Your task to perform on an android device: Search for vegetarian restaurants on Maps Image 0: 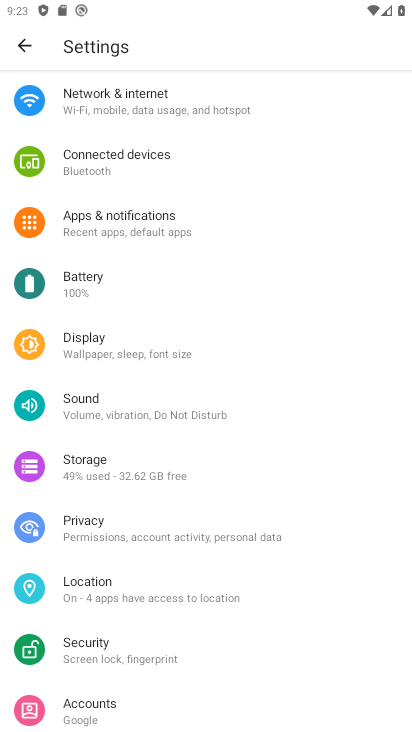
Step 0: press home button
Your task to perform on an android device: Search for vegetarian restaurants on Maps Image 1: 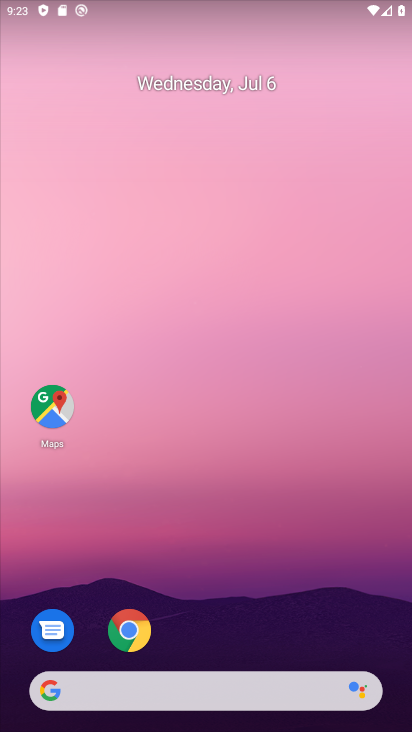
Step 1: drag from (375, 624) to (333, 113)
Your task to perform on an android device: Search for vegetarian restaurants on Maps Image 2: 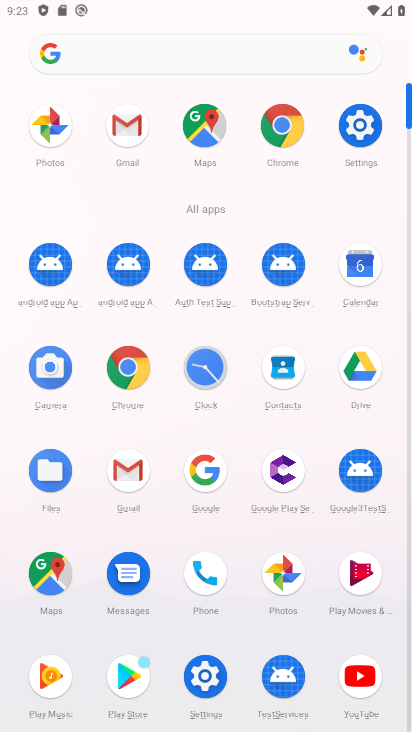
Step 2: click (47, 575)
Your task to perform on an android device: Search for vegetarian restaurants on Maps Image 3: 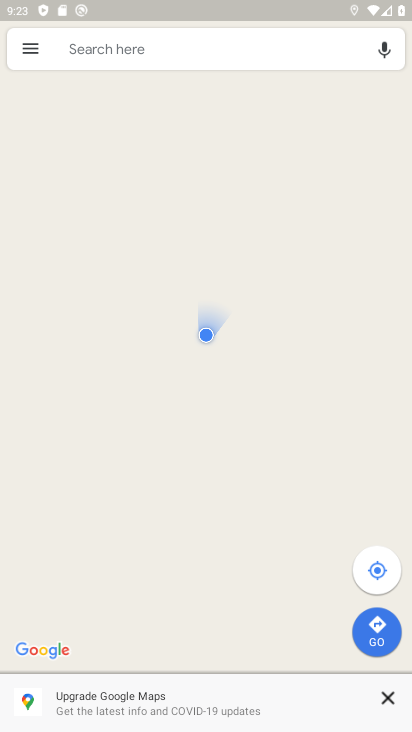
Step 3: click (118, 43)
Your task to perform on an android device: Search for vegetarian restaurants on Maps Image 4: 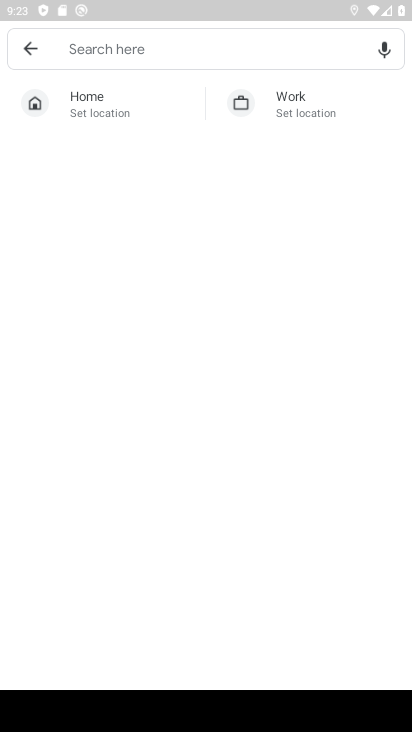
Step 4: type "vegetarian restaurants"
Your task to perform on an android device: Search for vegetarian restaurants on Maps Image 5: 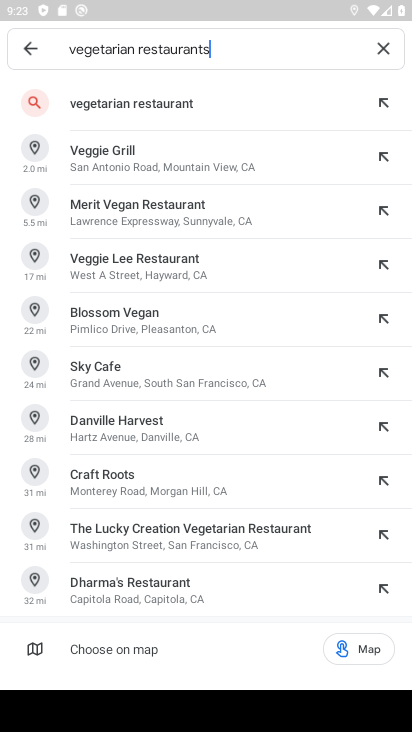
Step 5: click (138, 111)
Your task to perform on an android device: Search for vegetarian restaurants on Maps Image 6: 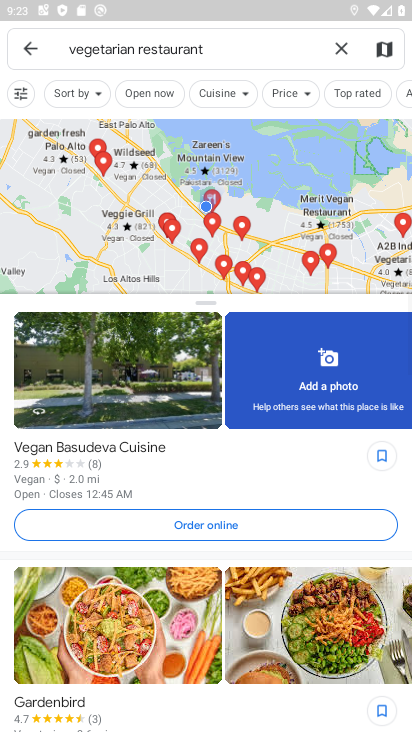
Step 6: task complete